Your task to perform on an android device: Go to location settings Image 0: 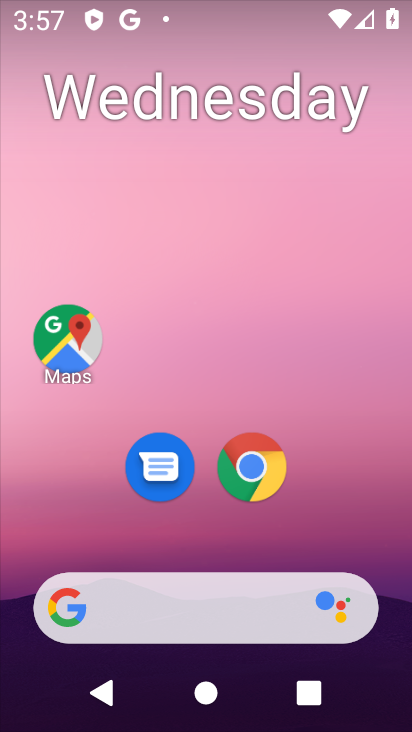
Step 0: drag from (219, 488) to (198, 3)
Your task to perform on an android device: Go to location settings Image 1: 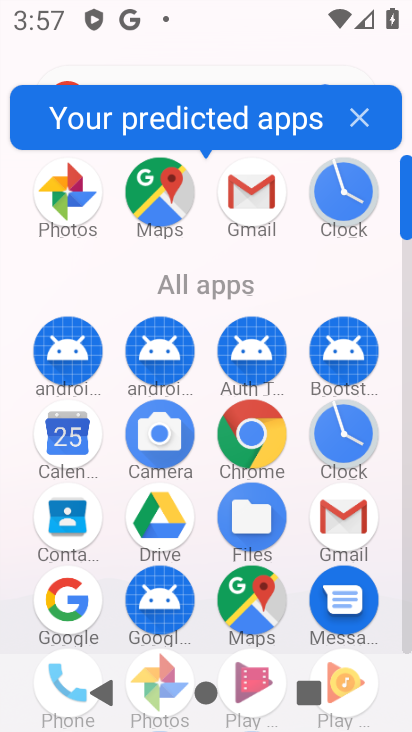
Step 1: drag from (197, 483) to (202, 223)
Your task to perform on an android device: Go to location settings Image 2: 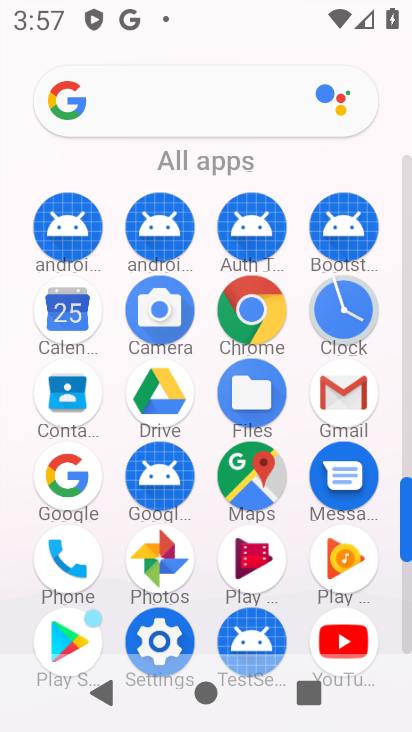
Step 2: click (155, 635)
Your task to perform on an android device: Go to location settings Image 3: 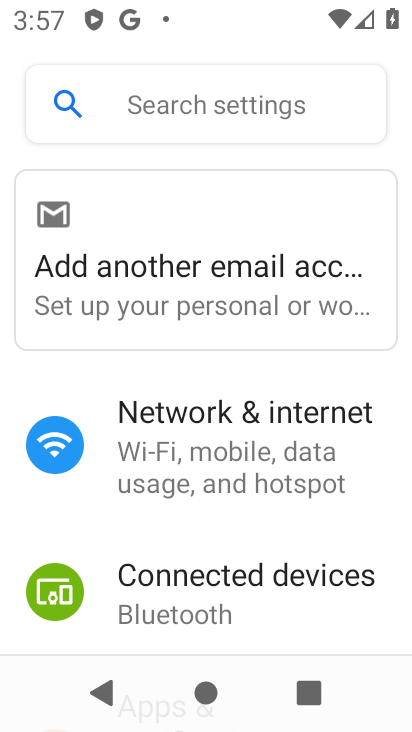
Step 3: drag from (246, 544) to (255, 363)
Your task to perform on an android device: Go to location settings Image 4: 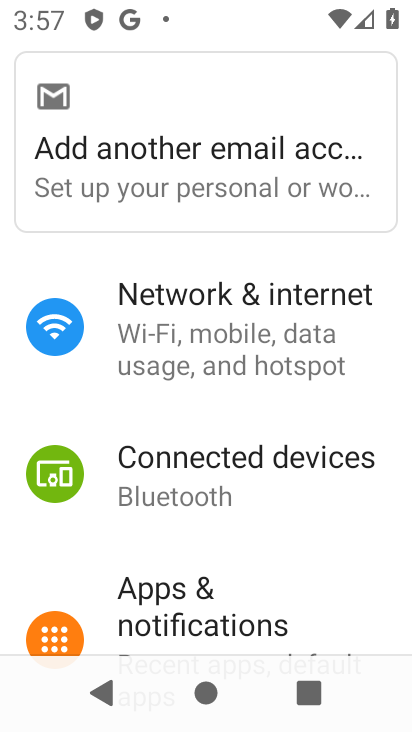
Step 4: drag from (232, 555) to (256, 238)
Your task to perform on an android device: Go to location settings Image 5: 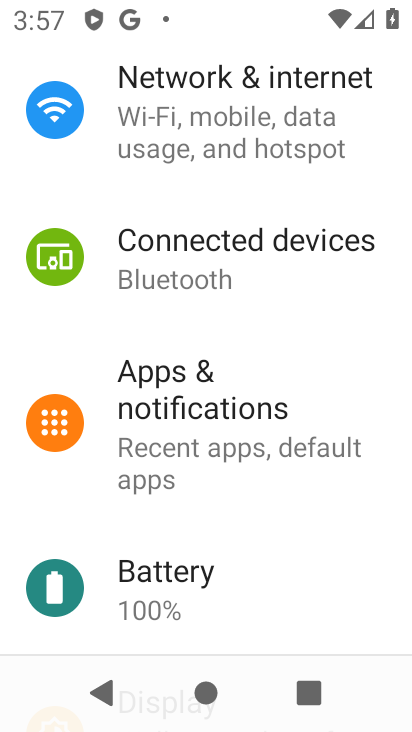
Step 5: drag from (216, 551) to (250, 258)
Your task to perform on an android device: Go to location settings Image 6: 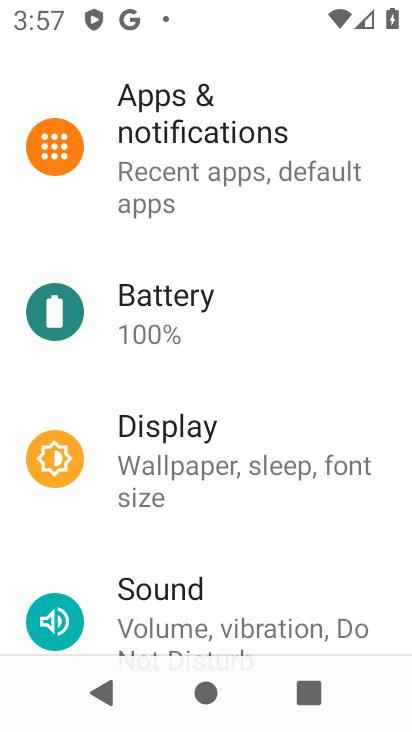
Step 6: drag from (206, 546) to (220, 189)
Your task to perform on an android device: Go to location settings Image 7: 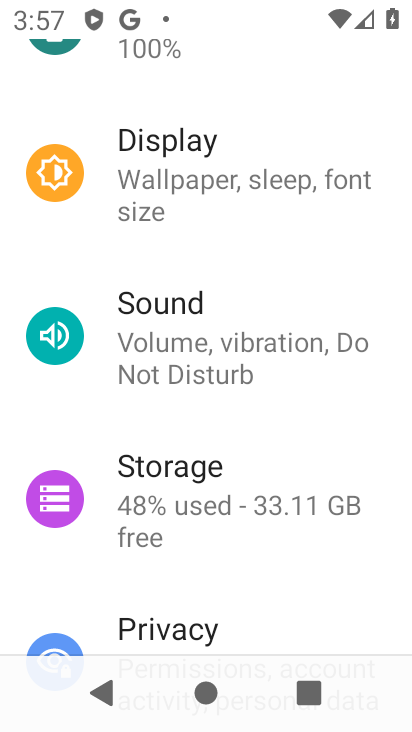
Step 7: drag from (198, 596) to (241, 244)
Your task to perform on an android device: Go to location settings Image 8: 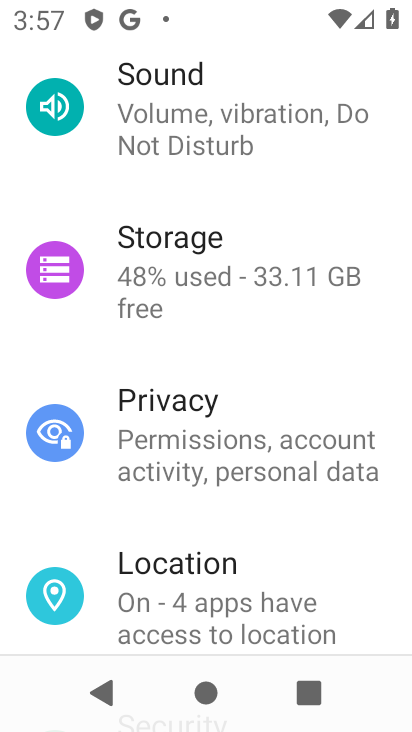
Step 8: click (198, 582)
Your task to perform on an android device: Go to location settings Image 9: 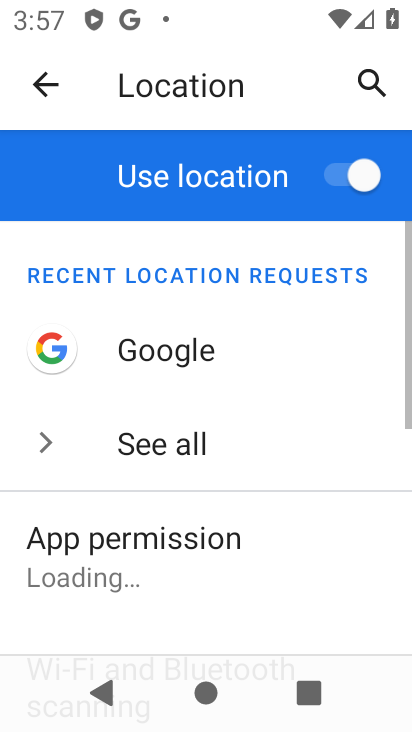
Step 9: task complete